Your task to perform on an android device: turn on location history Image 0: 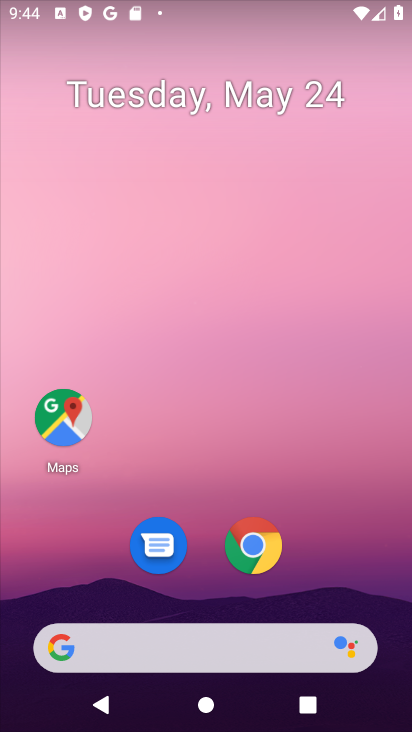
Step 0: drag from (214, 463) to (270, 39)
Your task to perform on an android device: turn on location history Image 1: 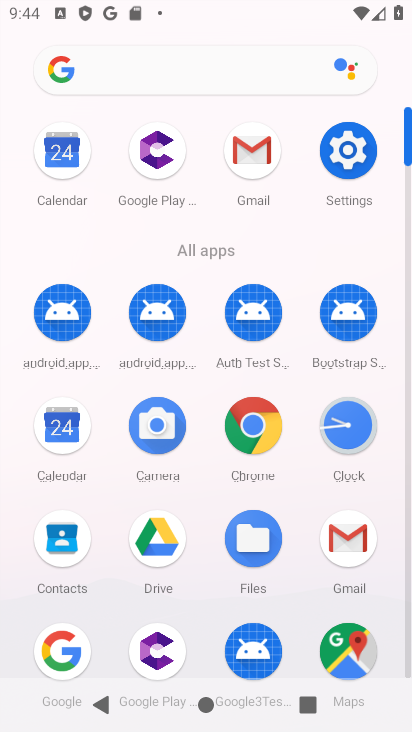
Step 1: click (350, 152)
Your task to perform on an android device: turn on location history Image 2: 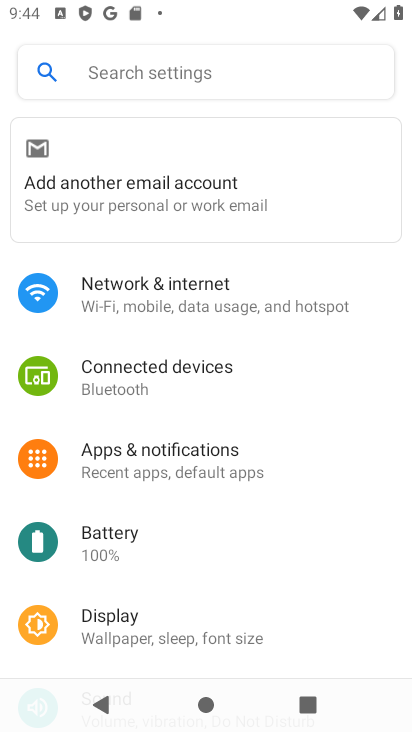
Step 2: drag from (241, 535) to (252, 217)
Your task to perform on an android device: turn on location history Image 3: 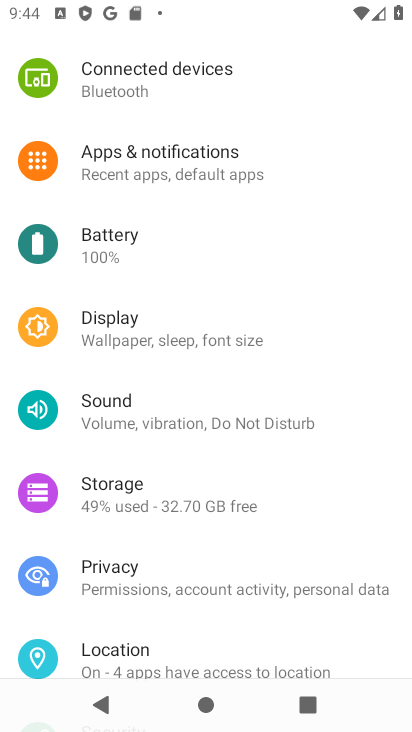
Step 3: click (187, 660)
Your task to perform on an android device: turn on location history Image 4: 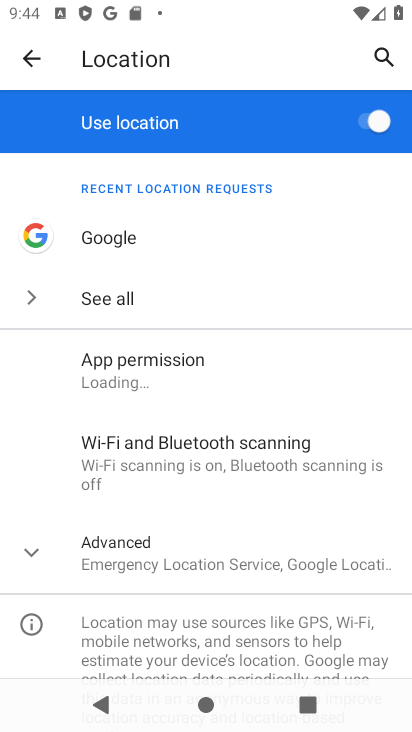
Step 4: drag from (231, 479) to (261, 180)
Your task to perform on an android device: turn on location history Image 5: 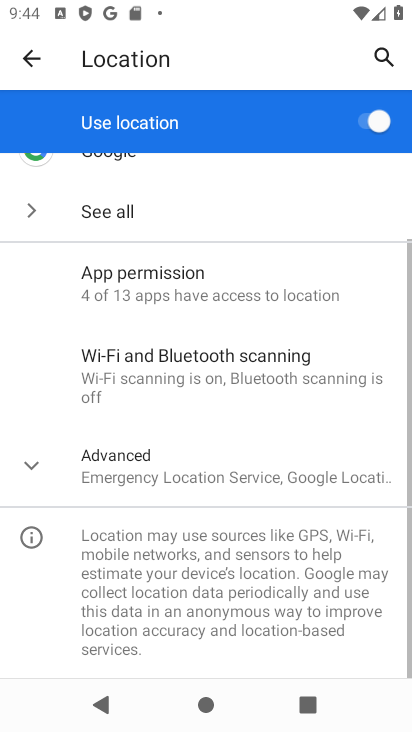
Step 5: click (37, 463)
Your task to perform on an android device: turn on location history Image 6: 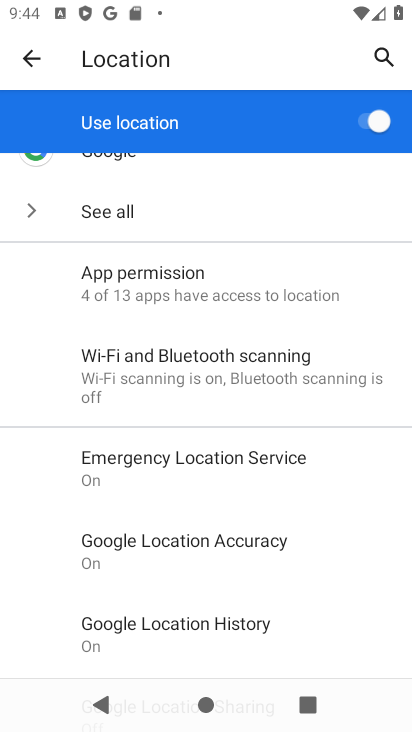
Step 6: click (201, 634)
Your task to perform on an android device: turn on location history Image 7: 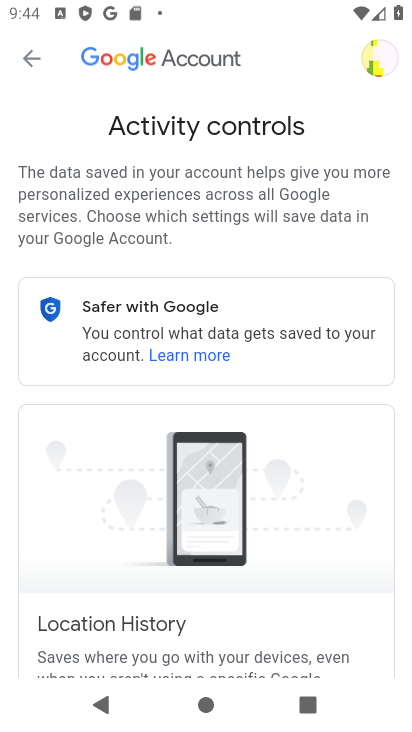
Step 7: drag from (320, 516) to (317, 165)
Your task to perform on an android device: turn on location history Image 8: 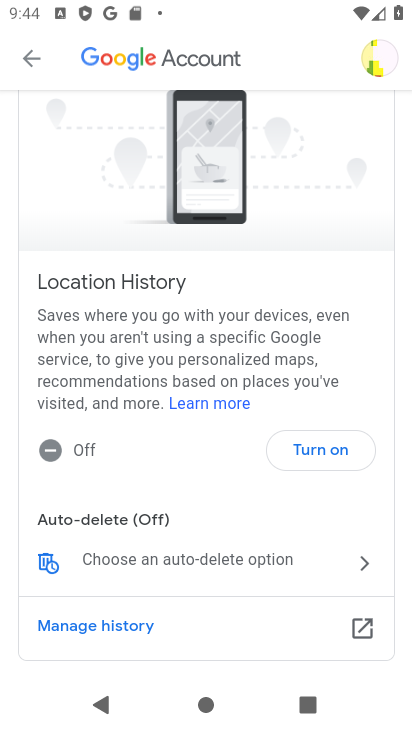
Step 8: click (324, 450)
Your task to perform on an android device: turn on location history Image 9: 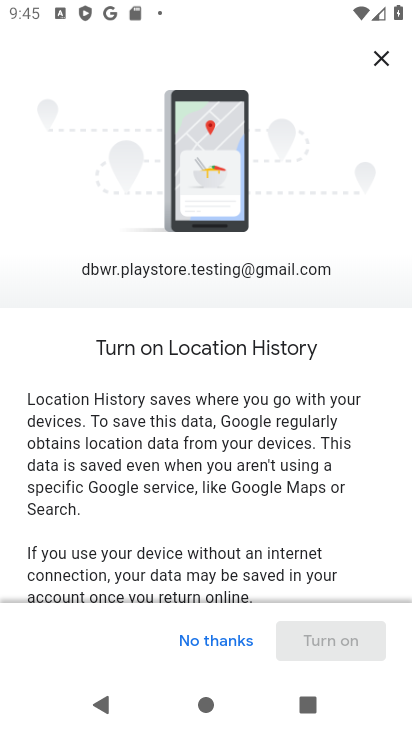
Step 9: drag from (322, 524) to (320, 42)
Your task to perform on an android device: turn on location history Image 10: 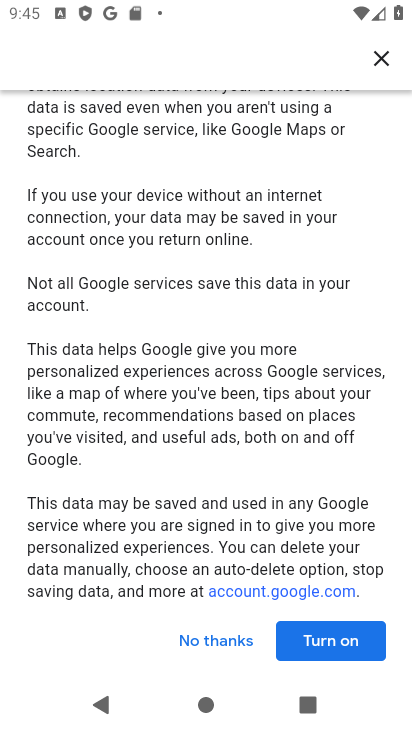
Step 10: click (347, 633)
Your task to perform on an android device: turn on location history Image 11: 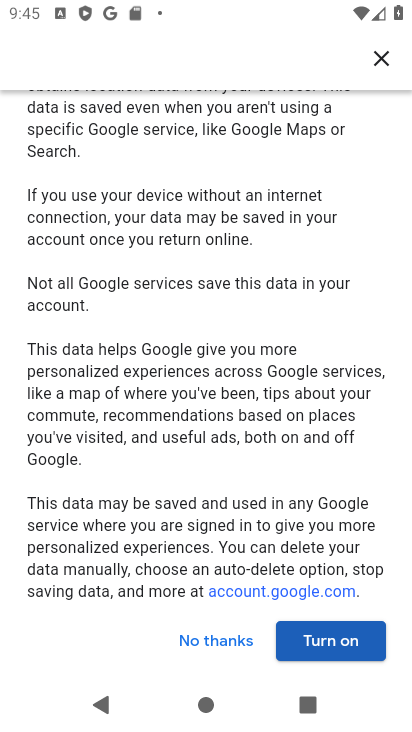
Step 11: click (347, 643)
Your task to perform on an android device: turn on location history Image 12: 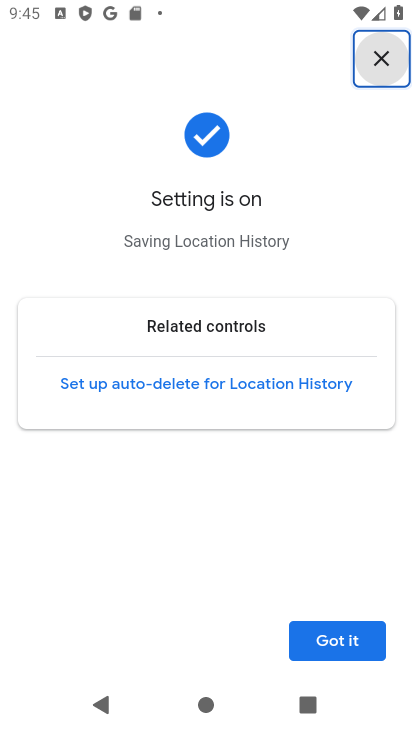
Step 12: click (347, 641)
Your task to perform on an android device: turn on location history Image 13: 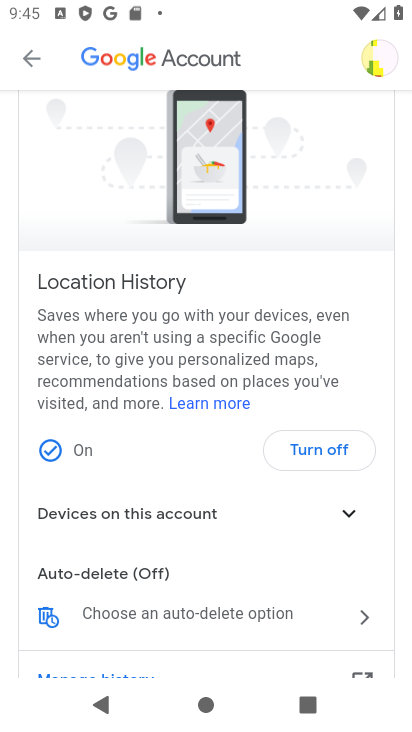
Step 13: task complete